Your task to perform on an android device: turn on location history Image 0: 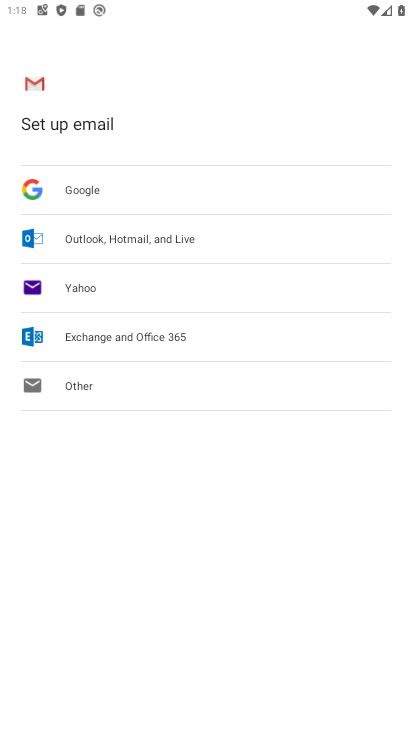
Step 0: press home button
Your task to perform on an android device: turn on location history Image 1: 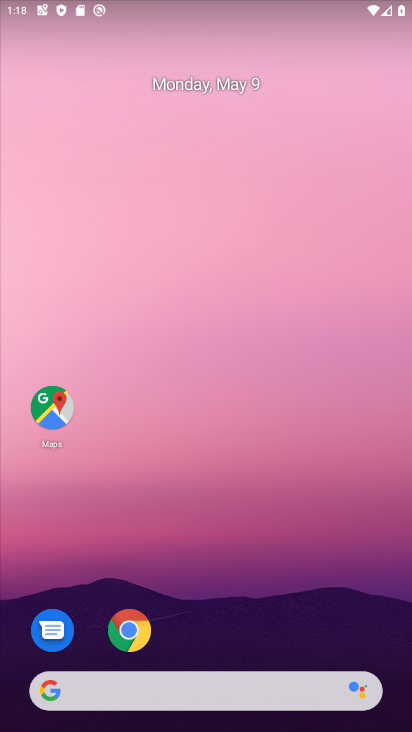
Step 1: drag from (248, 725) to (225, 201)
Your task to perform on an android device: turn on location history Image 2: 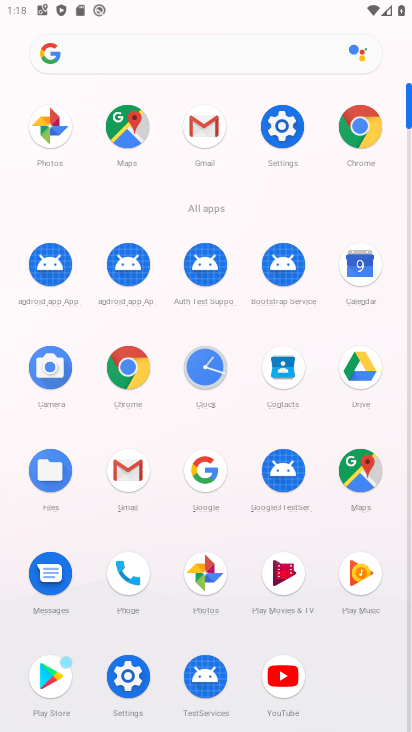
Step 2: click (274, 128)
Your task to perform on an android device: turn on location history Image 3: 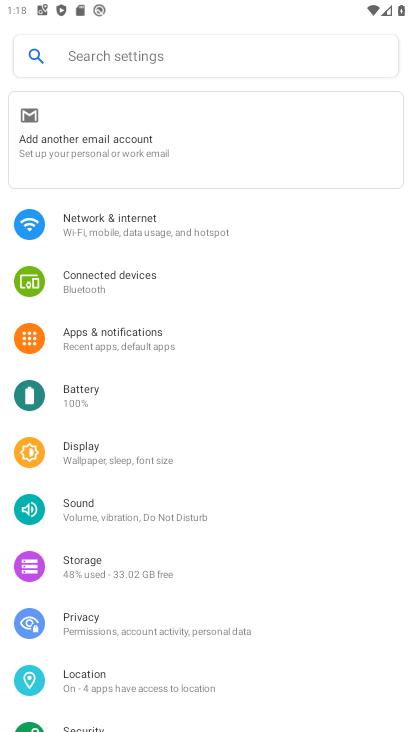
Step 3: click (108, 667)
Your task to perform on an android device: turn on location history Image 4: 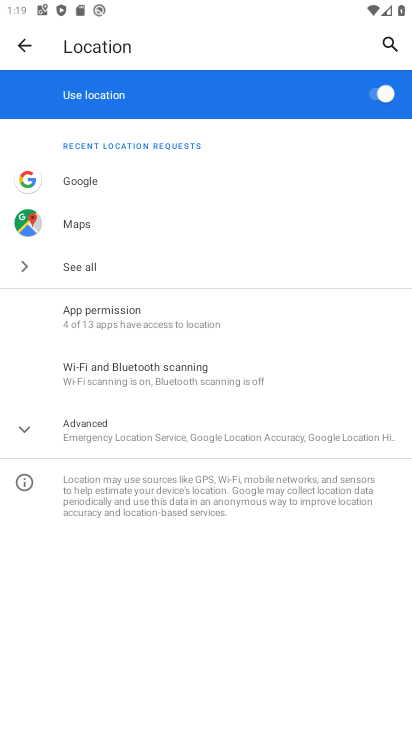
Step 4: click (108, 420)
Your task to perform on an android device: turn on location history Image 5: 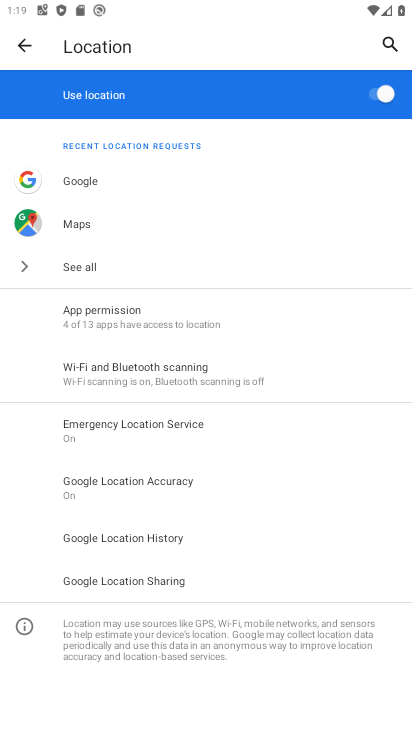
Step 5: click (180, 534)
Your task to perform on an android device: turn on location history Image 6: 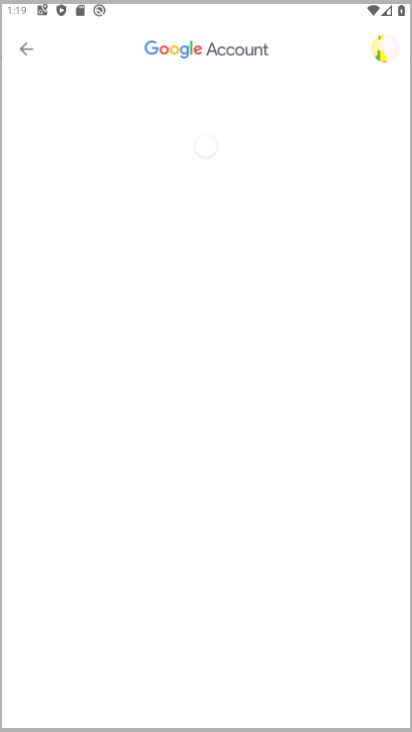
Step 6: task complete